Your task to perform on an android device: toggle notification dots Image 0: 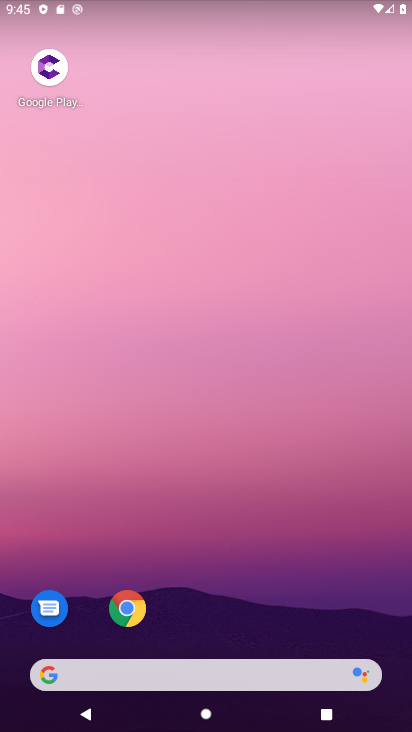
Step 0: drag from (263, 621) to (217, 165)
Your task to perform on an android device: toggle notification dots Image 1: 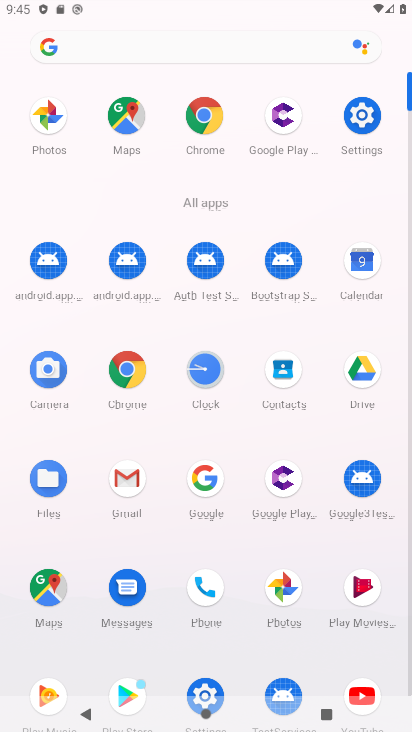
Step 1: click (370, 122)
Your task to perform on an android device: toggle notification dots Image 2: 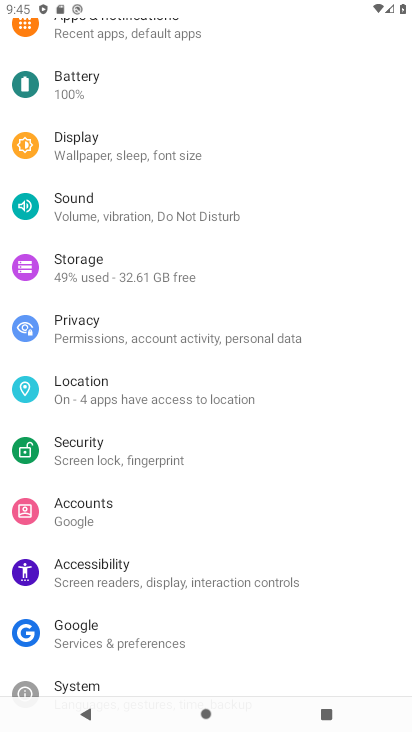
Step 2: drag from (198, 125) to (77, 572)
Your task to perform on an android device: toggle notification dots Image 3: 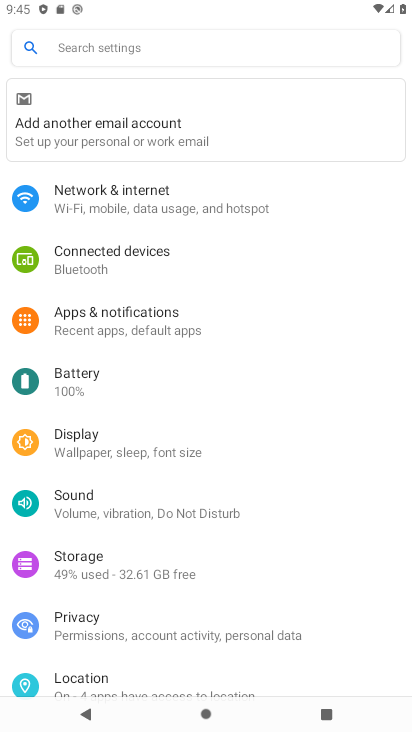
Step 3: click (172, 338)
Your task to perform on an android device: toggle notification dots Image 4: 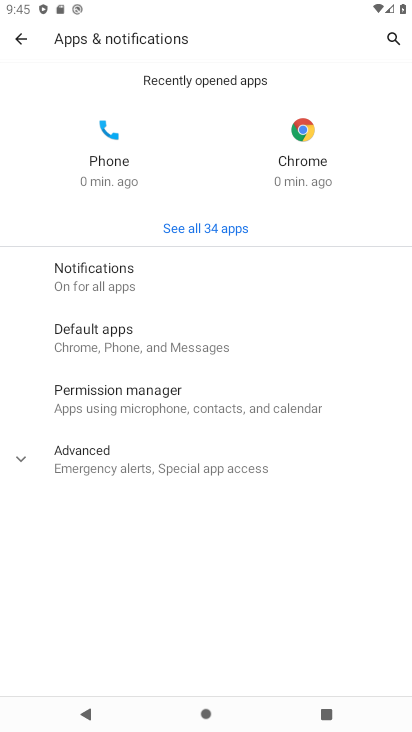
Step 4: click (141, 282)
Your task to perform on an android device: toggle notification dots Image 5: 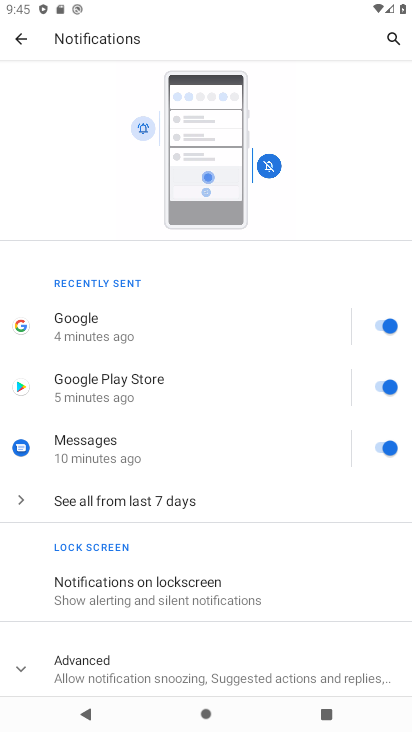
Step 5: drag from (187, 577) to (254, 137)
Your task to perform on an android device: toggle notification dots Image 6: 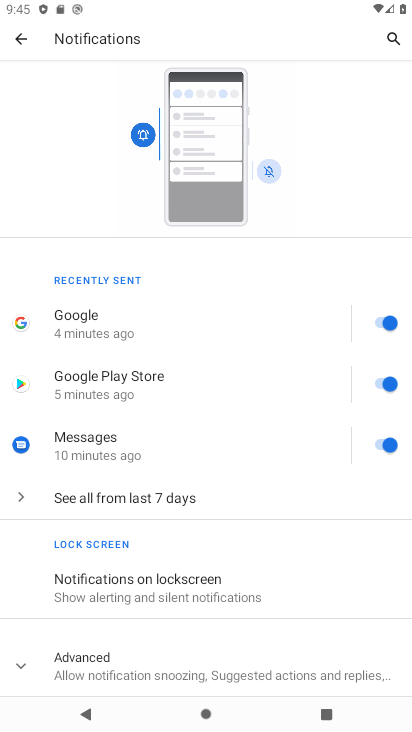
Step 6: click (169, 651)
Your task to perform on an android device: toggle notification dots Image 7: 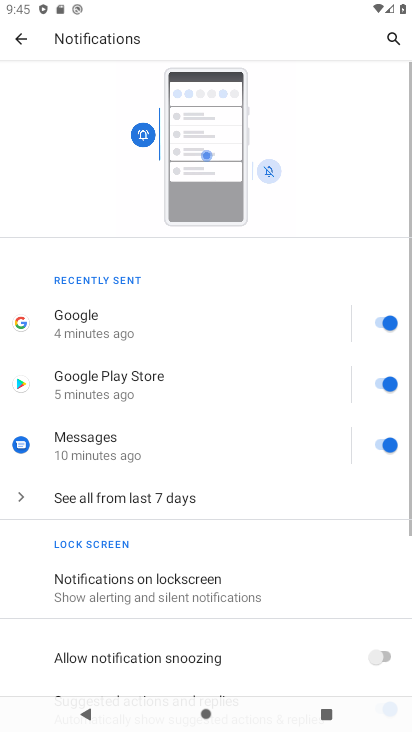
Step 7: drag from (169, 651) to (242, 294)
Your task to perform on an android device: toggle notification dots Image 8: 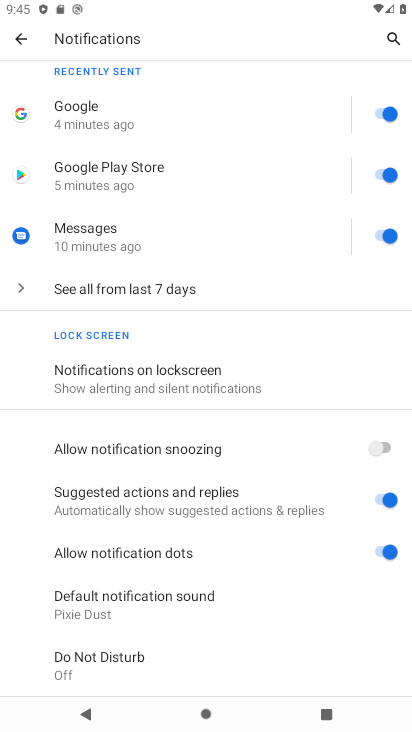
Step 8: click (383, 558)
Your task to perform on an android device: toggle notification dots Image 9: 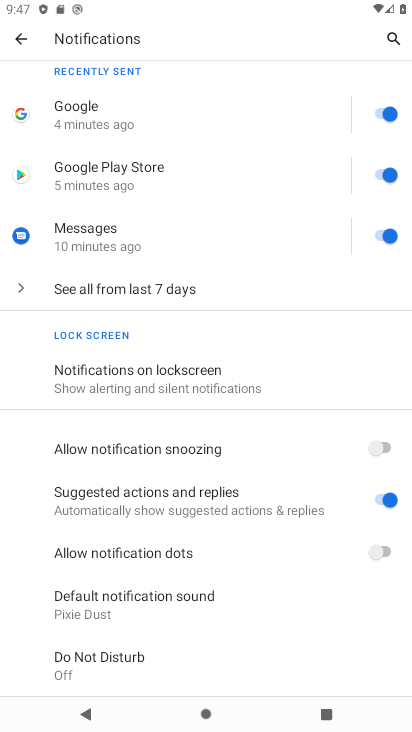
Step 9: task complete